Your task to perform on an android device: When is my next appointment? Image 0: 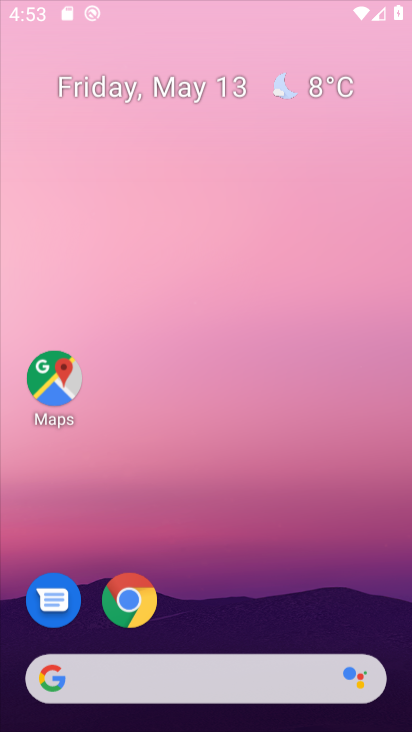
Step 0: click (356, 609)
Your task to perform on an android device: When is my next appointment? Image 1: 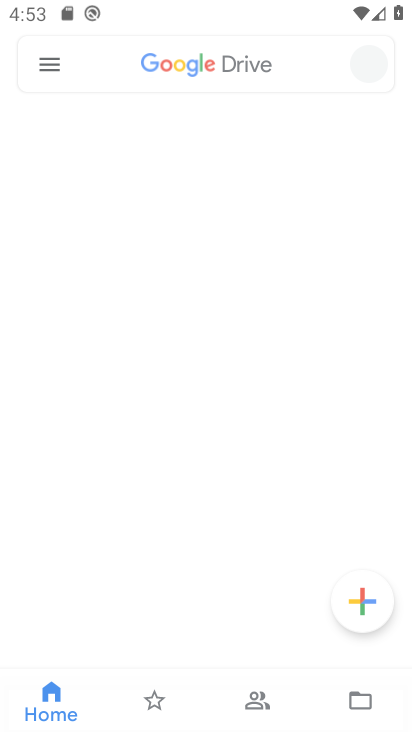
Step 1: drag from (356, 609) to (370, 176)
Your task to perform on an android device: When is my next appointment? Image 2: 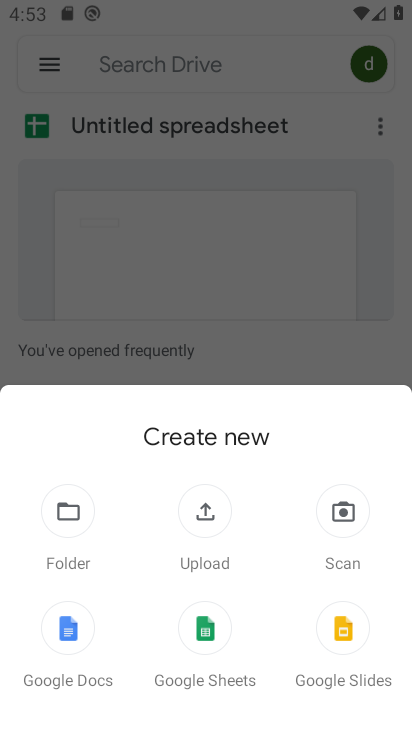
Step 2: press home button
Your task to perform on an android device: When is my next appointment? Image 3: 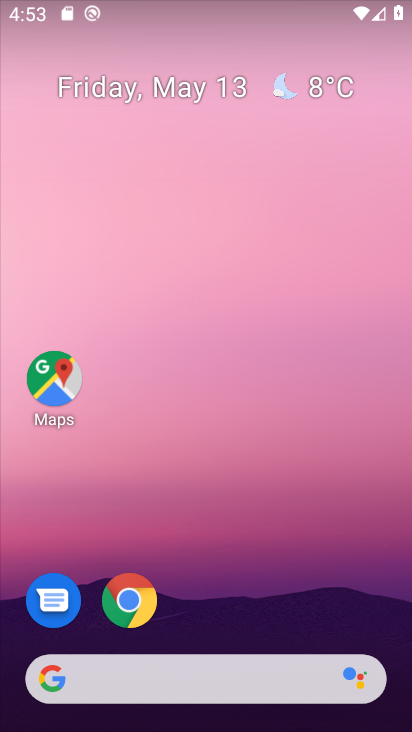
Step 3: drag from (241, 593) to (288, 40)
Your task to perform on an android device: When is my next appointment? Image 4: 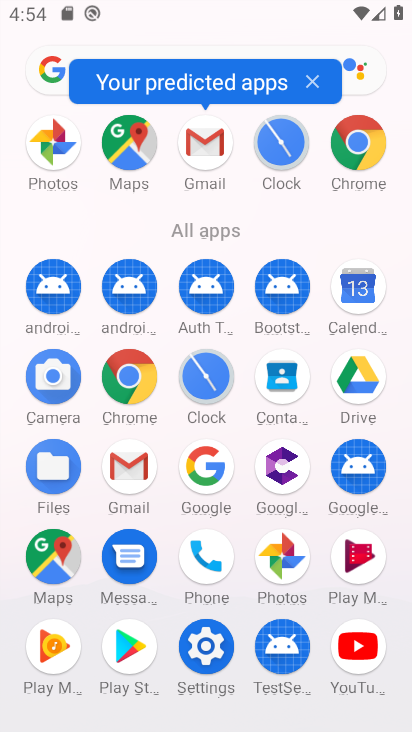
Step 4: click (190, 637)
Your task to perform on an android device: When is my next appointment? Image 5: 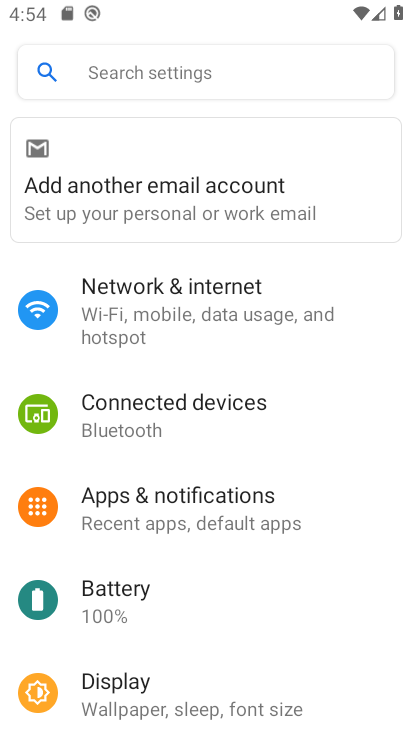
Step 5: press home button
Your task to perform on an android device: When is my next appointment? Image 6: 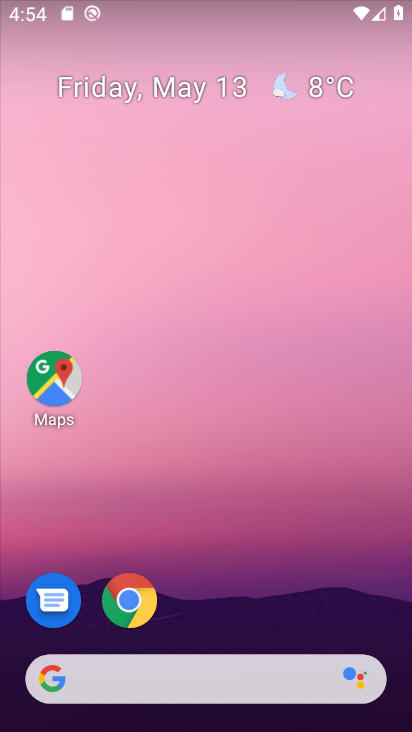
Step 6: drag from (328, 604) to (316, 8)
Your task to perform on an android device: When is my next appointment? Image 7: 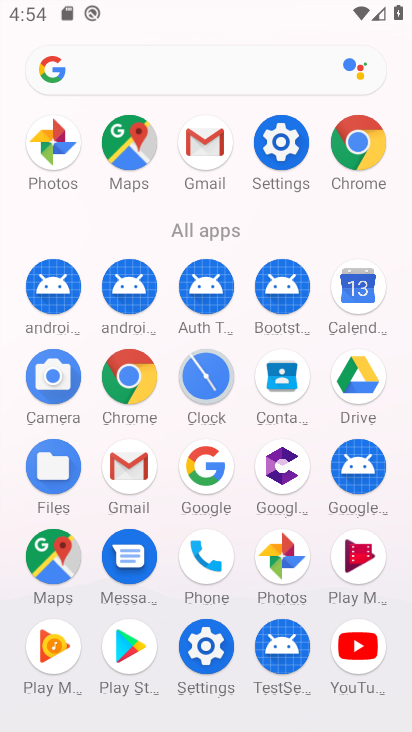
Step 7: click (356, 311)
Your task to perform on an android device: When is my next appointment? Image 8: 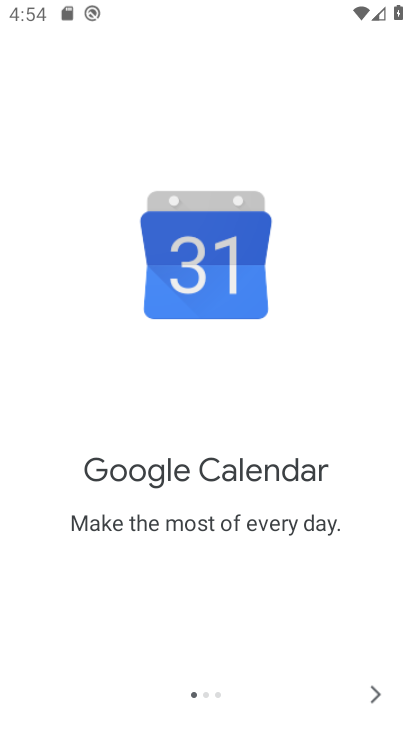
Step 8: click (385, 695)
Your task to perform on an android device: When is my next appointment? Image 9: 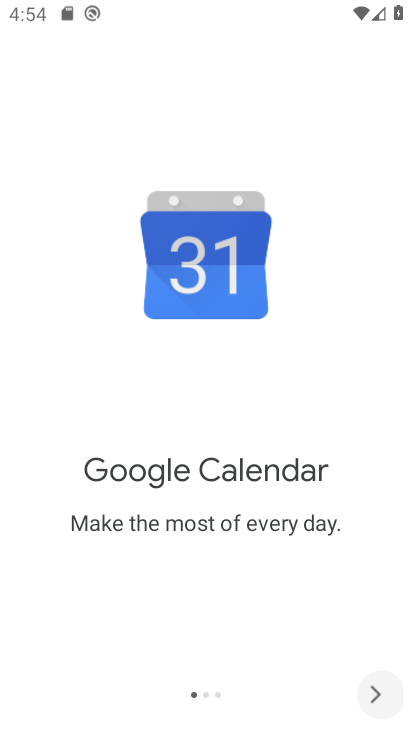
Step 9: click (385, 695)
Your task to perform on an android device: When is my next appointment? Image 10: 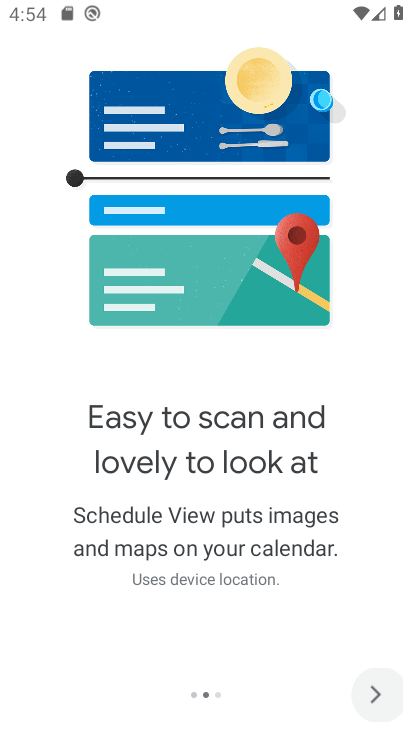
Step 10: click (385, 695)
Your task to perform on an android device: When is my next appointment? Image 11: 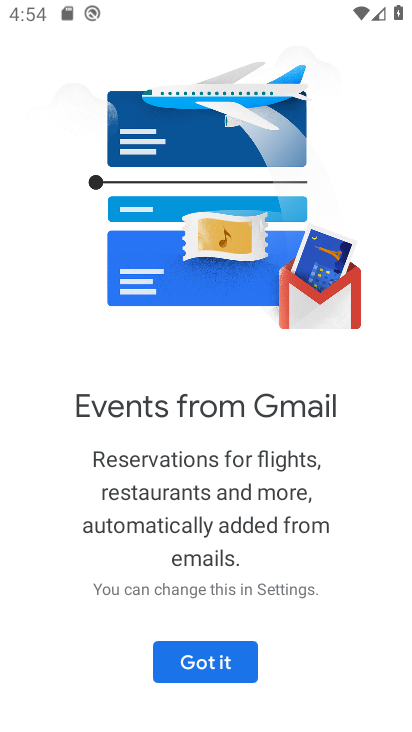
Step 11: click (385, 695)
Your task to perform on an android device: When is my next appointment? Image 12: 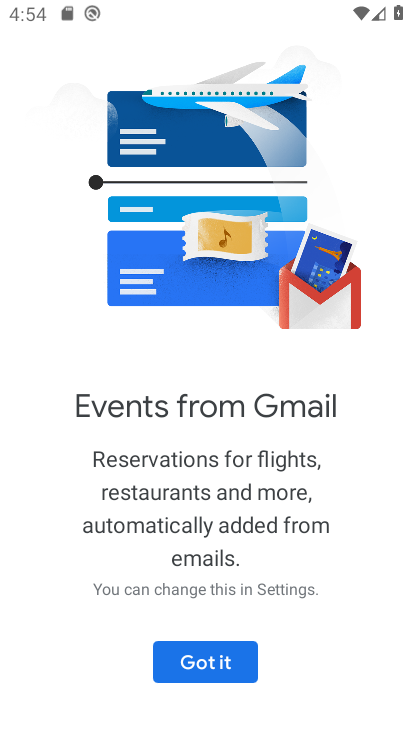
Step 12: click (385, 695)
Your task to perform on an android device: When is my next appointment? Image 13: 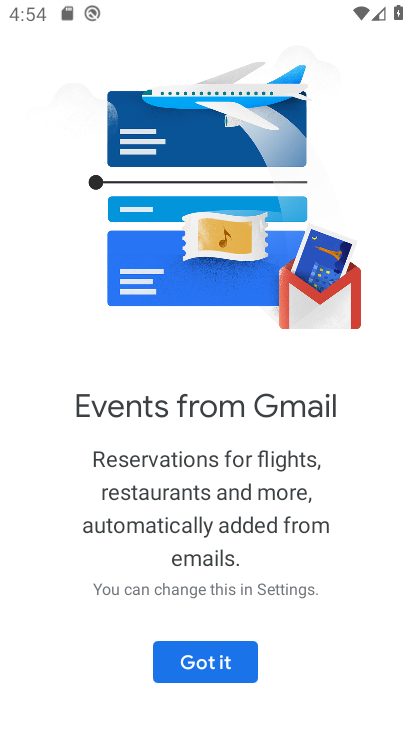
Step 13: click (177, 663)
Your task to perform on an android device: When is my next appointment? Image 14: 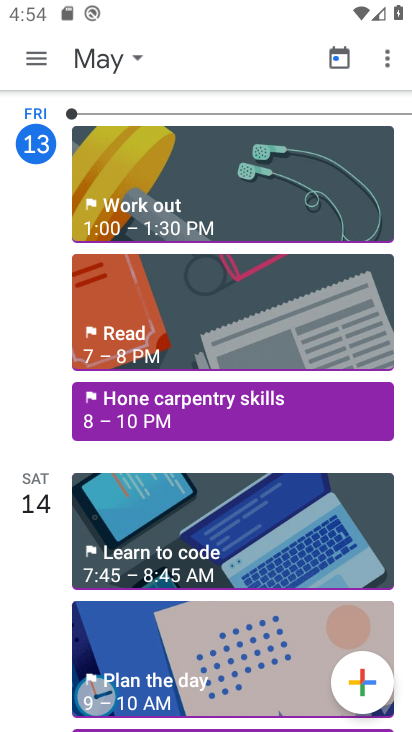
Step 14: click (32, 71)
Your task to perform on an android device: When is my next appointment? Image 15: 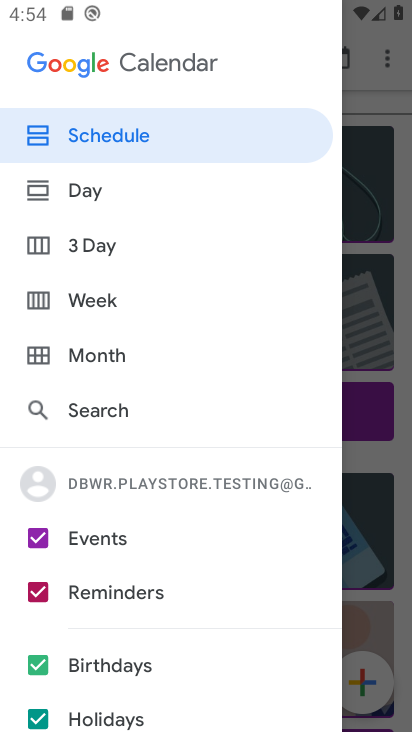
Step 15: click (175, 349)
Your task to perform on an android device: When is my next appointment? Image 16: 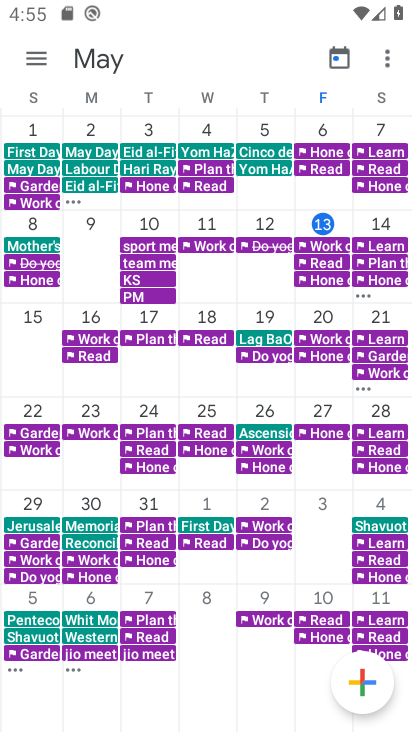
Step 16: task complete